Your task to perform on an android device: toggle priority inbox in the gmail app Image 0: 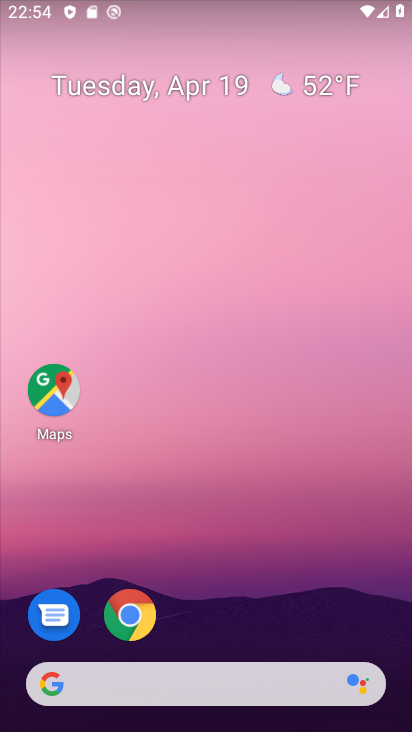
Step 0: drag from (244, 667) to (357, 87)
Your task to perform on an android device: toggle priority inbox in the gmail app Image 1: 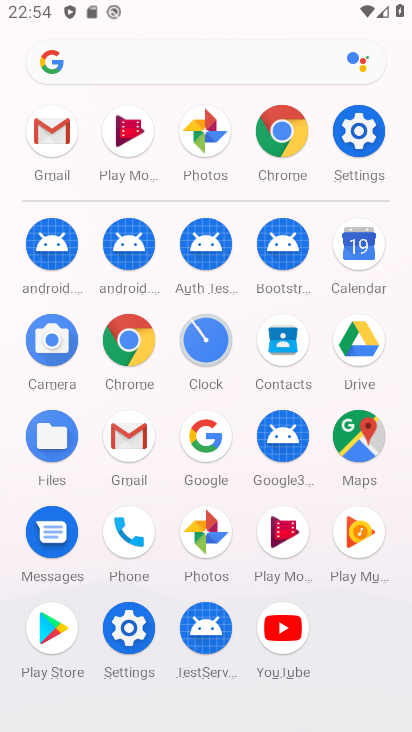
Step 1: click (38, 129)
Your task to perform on an android device: toggle priority inbox in the gmail app Image 2: 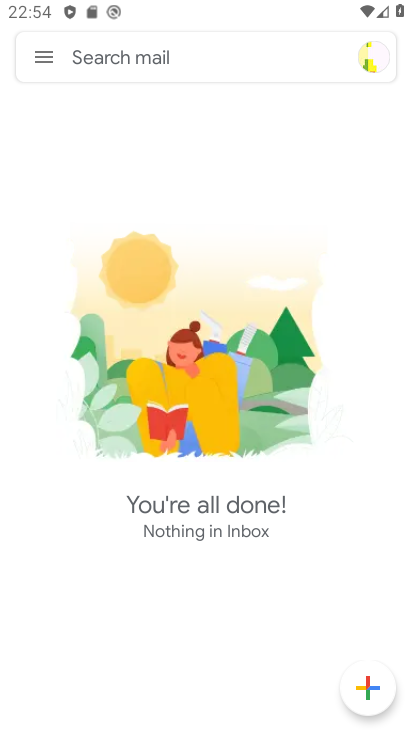
Step 2: click (41, 58)
Your task to perform on an android device: toggle priority inbox in the gmail app Image 3: 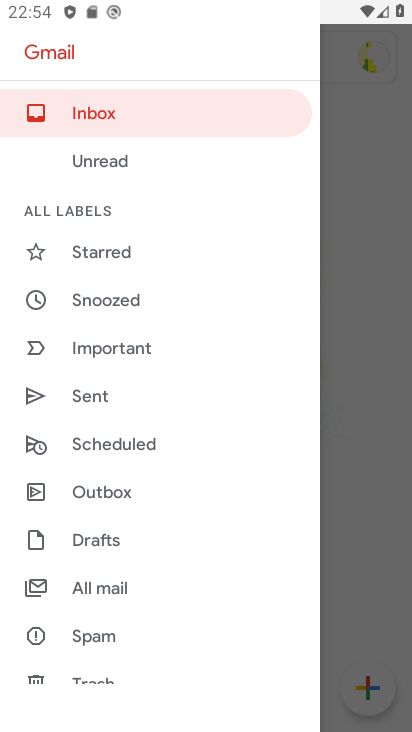
Step 3: drag from (54, 585) to (264, 137)
Your task to perform on an android device: toggle priority inbox in the gmail app Image 4: 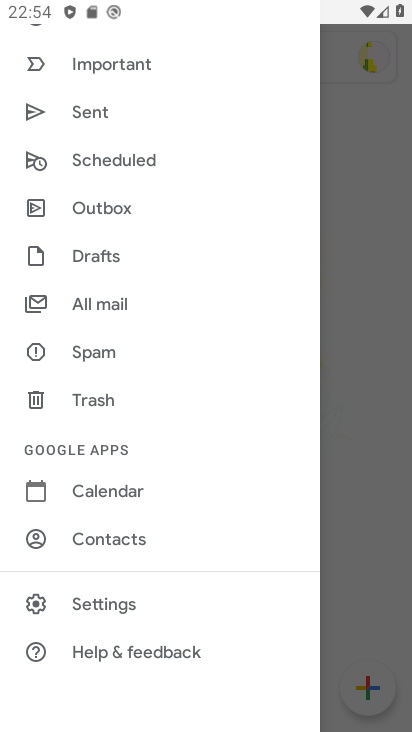
Step 4: click (110, 606)
Your task to perform on an android device: toggle priority inbox in the gmail app Image 5: 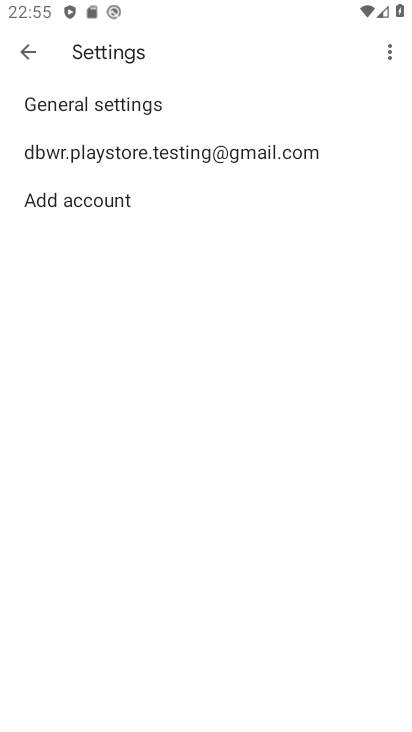
Step 5: click (307, 161)
Your task to perform on an android device: toggle priority inbox in the gmail app Image 6: 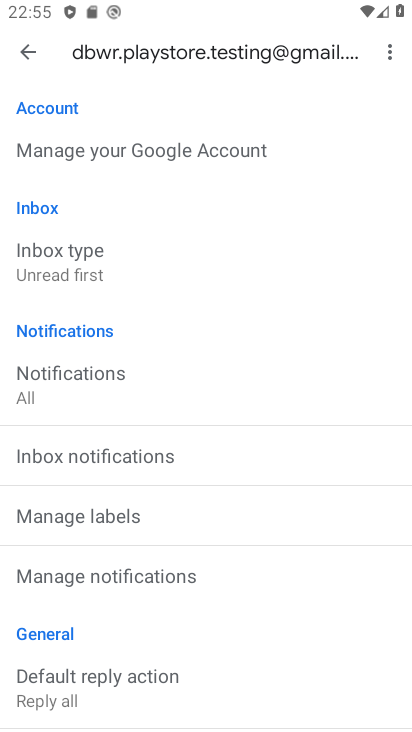
Step 6: click (138, 268)
Your task to perform on an android device: toggle priority inbox in the gmail app Image 7: 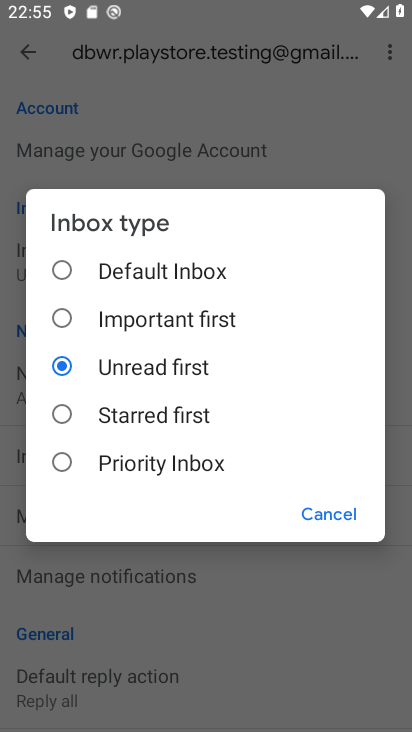
Step 7: click (164, 461)
Your task to perform on an android device: toggle priority inbox in the gmail app Image 8: 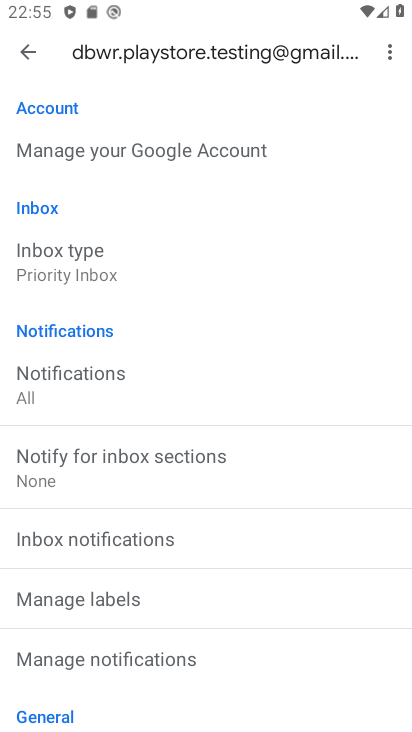
Step 8: task complete